Your task to perform on an android device: What's the weather going to be tomorrow? Image 0: 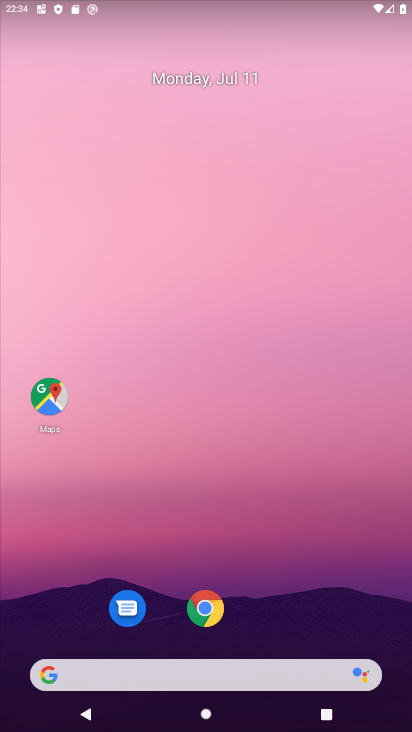
Step 0: click (29, 718)
Your task to perform on an android device: What's the weather going to be tomorrow? Image 1: 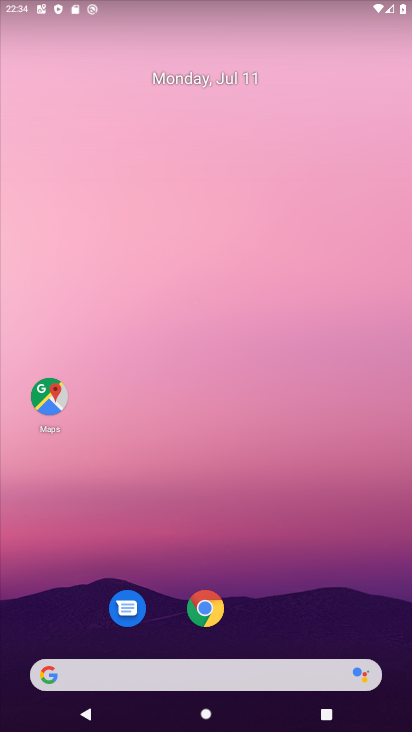
Step 1: click (98, 664)
Your task to perform on an android device: What's the weather going to be tomorrow? Image 2: 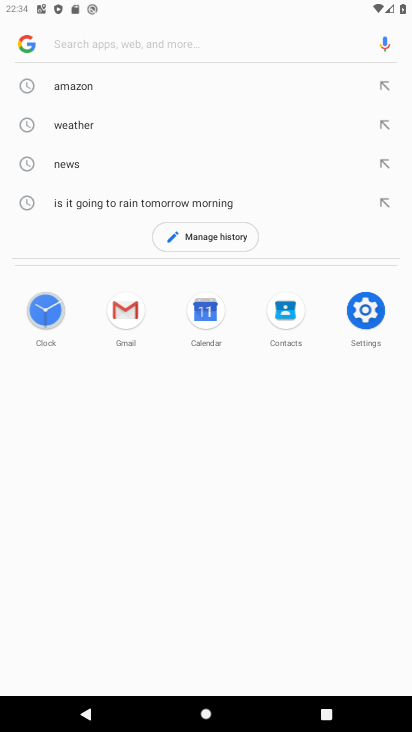
Step 2: type "What's the weather going to be tomorrow?"
Your task to perform on an android device: What's the weather going to be tomorrow? Image 3: 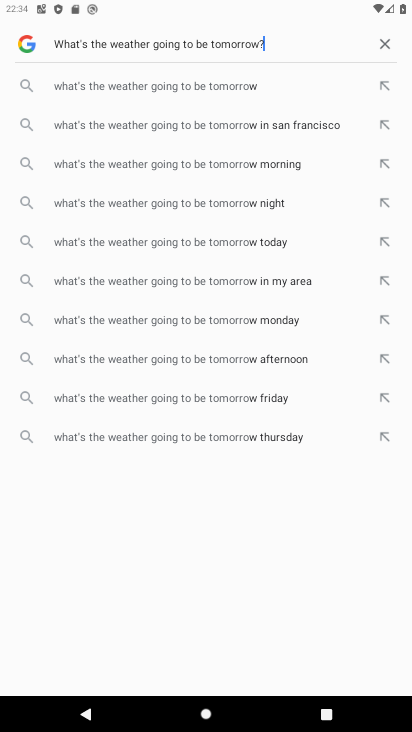
Step 3: type ""
Your task to perform on an android device: What's the weather going to be tomorrow? Image 4: 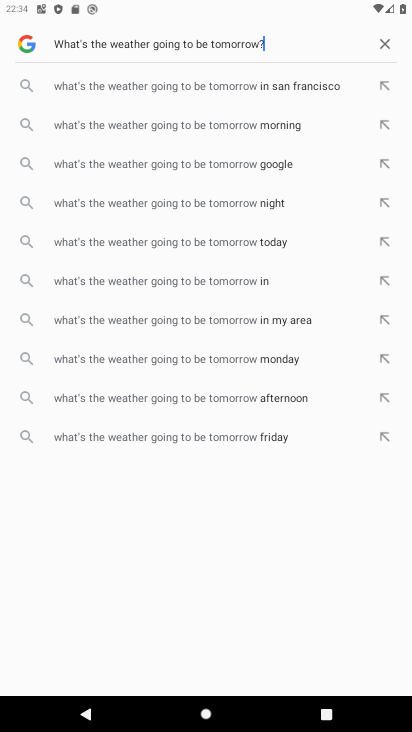
Step 4: type "    "
Your task to perform on an android device: What's the weather going to be tomorrow? Image 5: 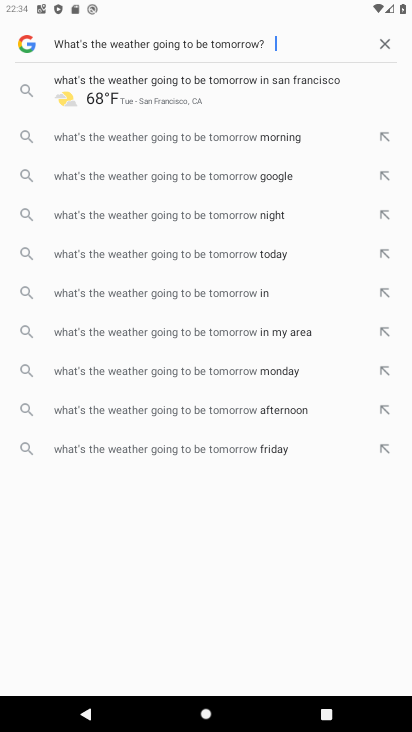
Step 5: task complete